Your task to perform on an android device: What's the weather today? Image 0: 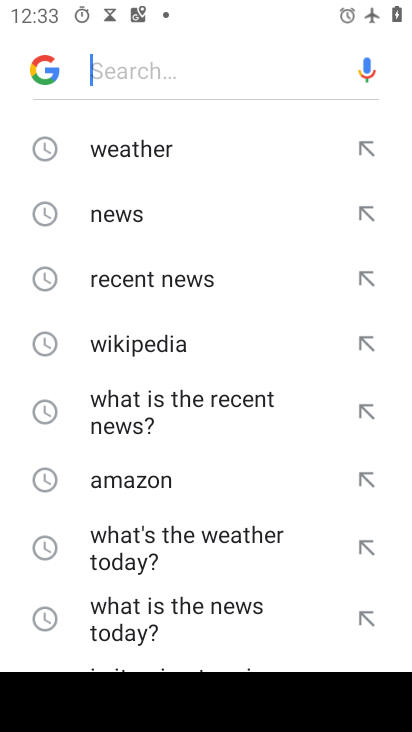
Step 0: press home button
Your task to perform on an android device: What's the weather today? Image 1: 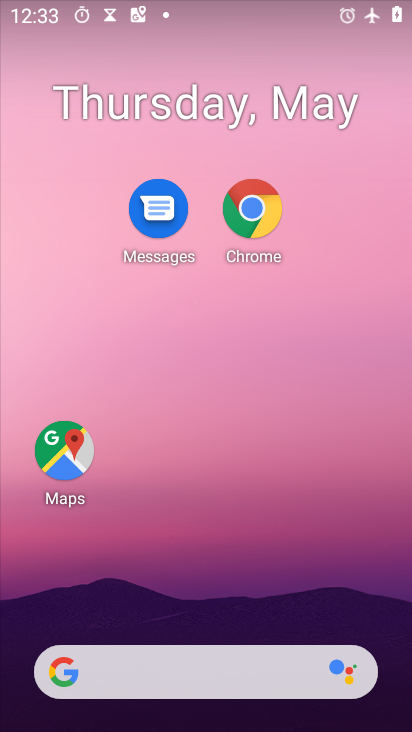
Step 1: click (196, 611)
Your task to perform on an android device: What's the weather today? Image 2: 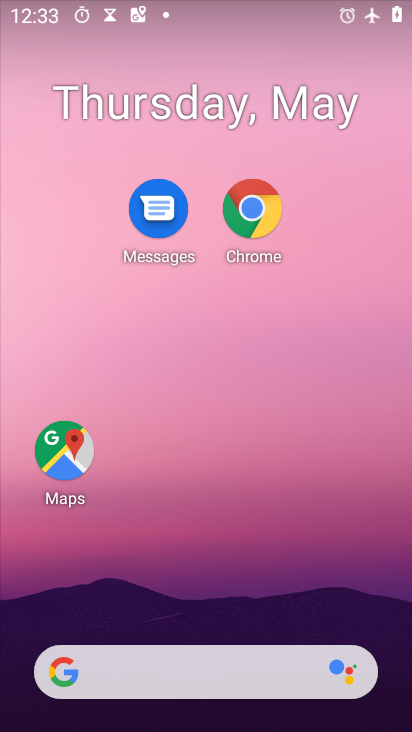
Step 2: click (169, 665)
Your task to perform on an android device: What's the weather today? Image 3: 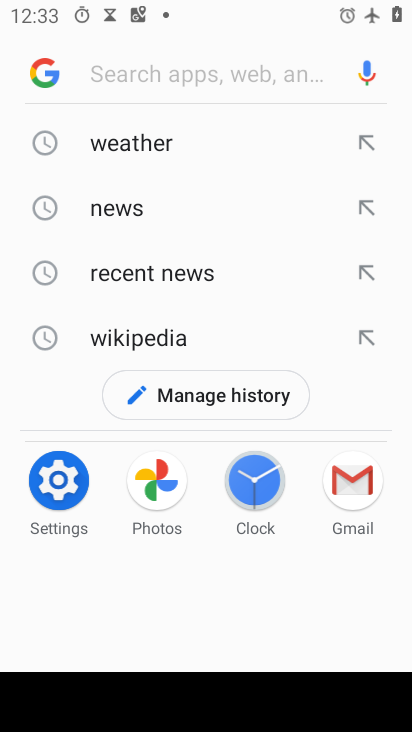
Step 3: click (151, 159)
Your task to perform on an android device: What's the weather today? Image 4: 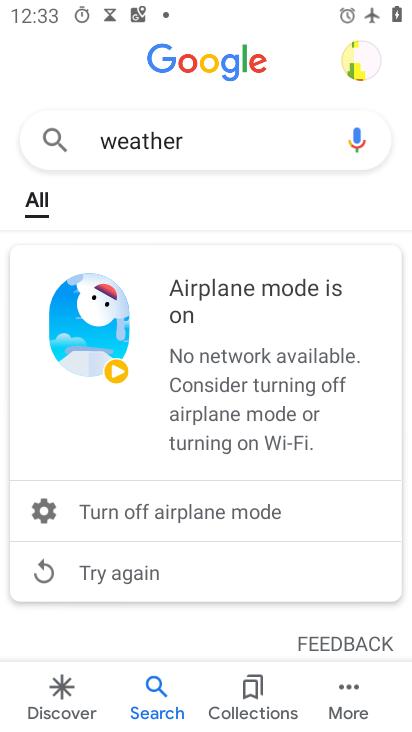
Step 4: press back button
Your task to perform on an android device: What's the weather today? Image 5: 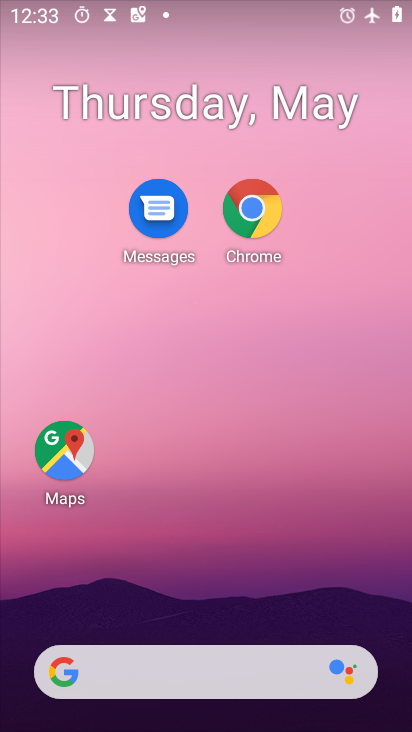
Step 5: drag from (143, 609) to (142, 106)
Your task to perform on an android device: What's the weather today? Image 6: 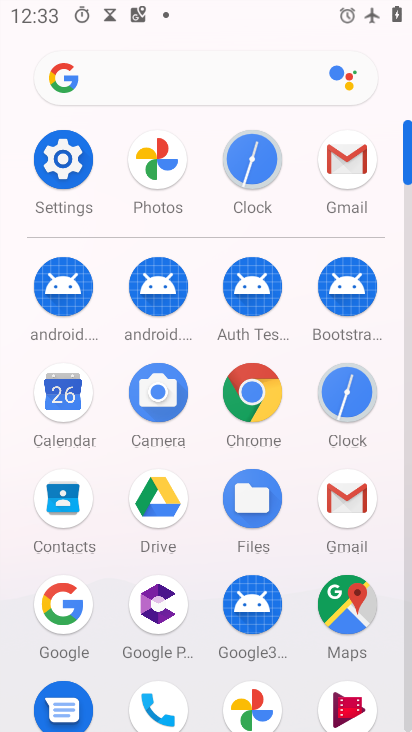
Step 6: click (52, 150)
Your task to perform on an android device: What's the weather today? Image 7: 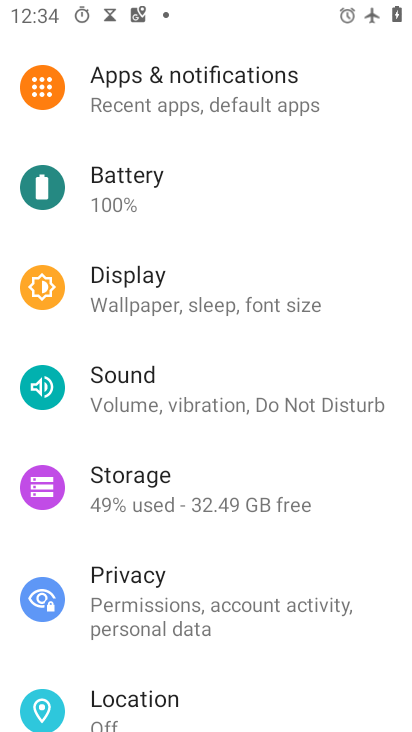
Step 7: drag from (220, 193) to (180, 549)
Your task to perform on an android device: What's the weather today? Image 8: 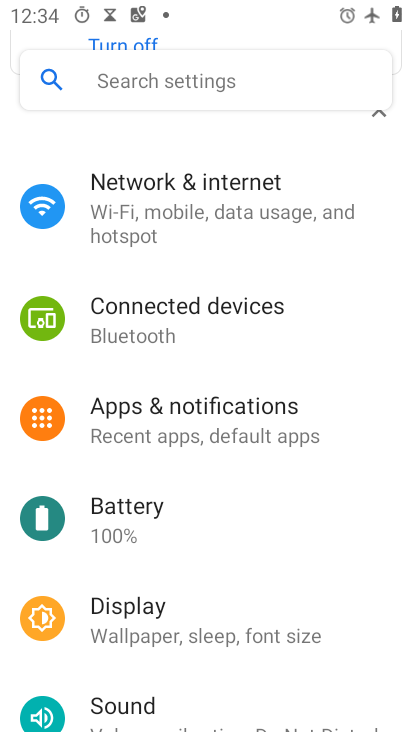
Step 8: click (158, 205)
Your task to perform on an android device: What's the weather today? Image 9: 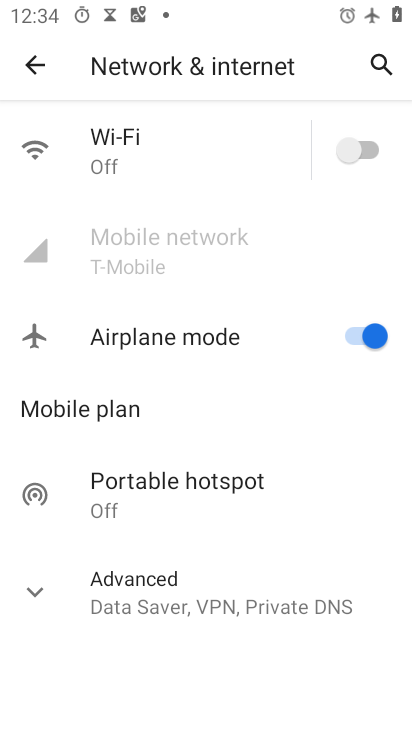
Step 9: click (351, 342)
Your task to perform on an android device: What's the weather today? Image 10: 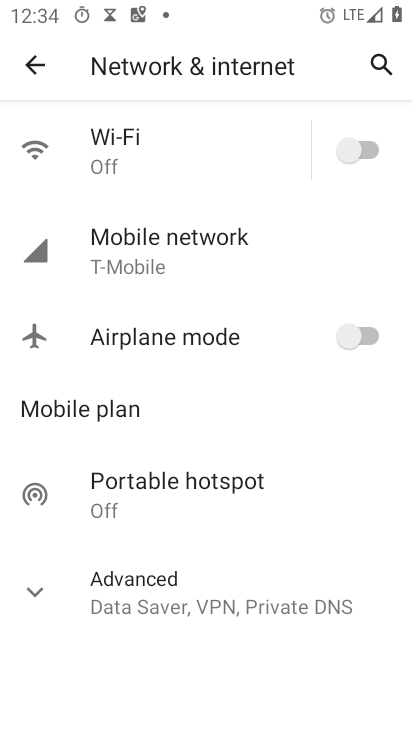
Step 10: press home button
Your task to perform on an android device: What's the weather today? Image 11: 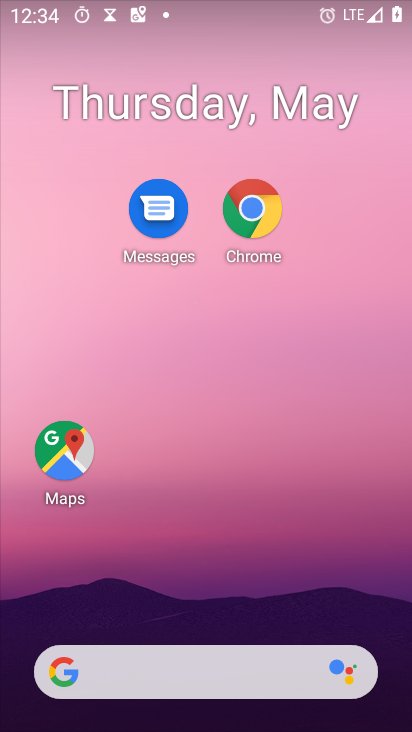
Step 11: click (187, 663)
Your task to perform on an android device: What's the weather today? Image 12: 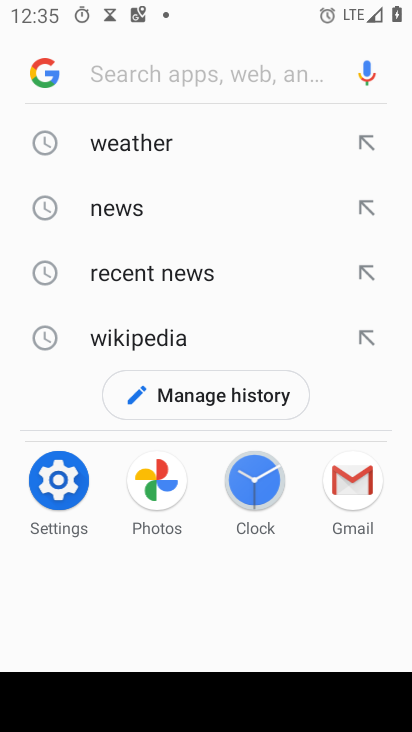
Step 12: click (142, 141)
Your task to perform on an android device: What's the weather today? Image 13: 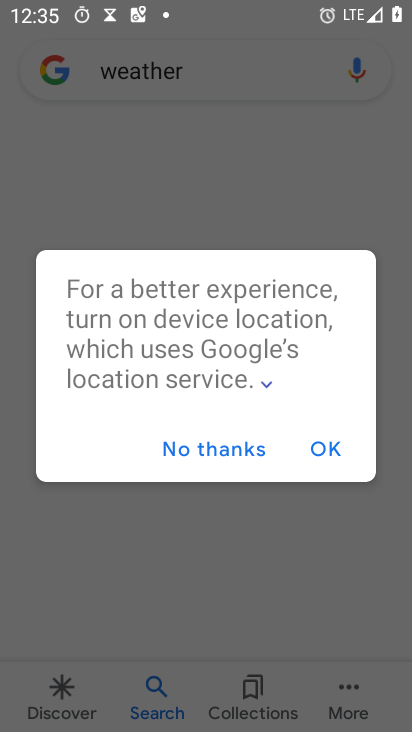
Step 13: click (341, 440)
Your task to perform on an android device: What's the weather today? Image 14: 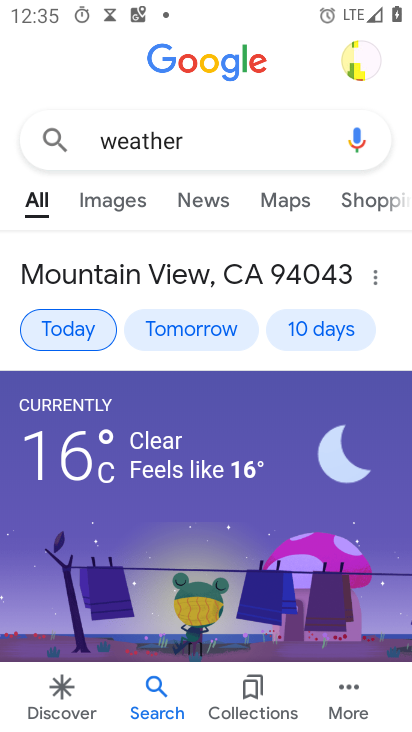
Step 14: task complete